Your task to perform on an android device: install app "Indeed Job Search" Image 0: 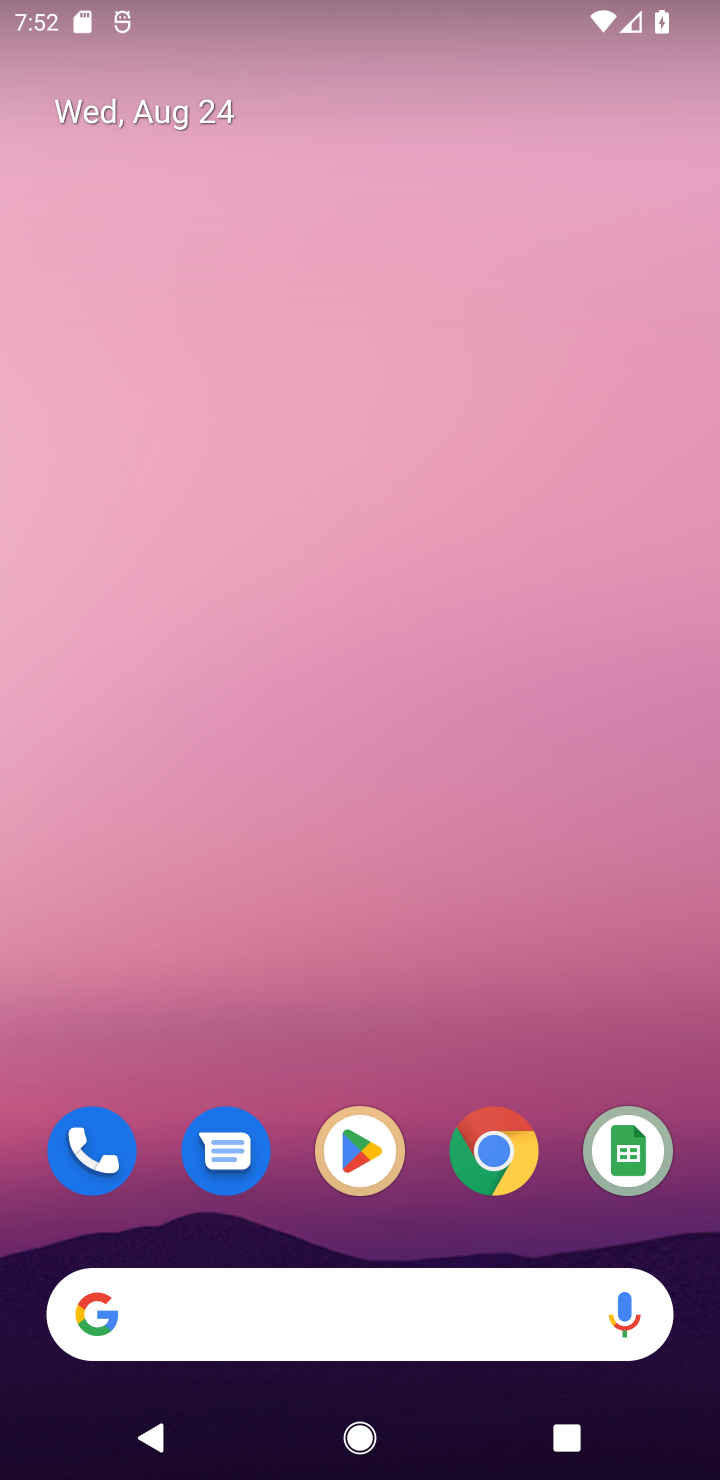
Step 0: click (364, 1149)
Your task to perform on an android device: install app "Indeed Job Search" Image 1: 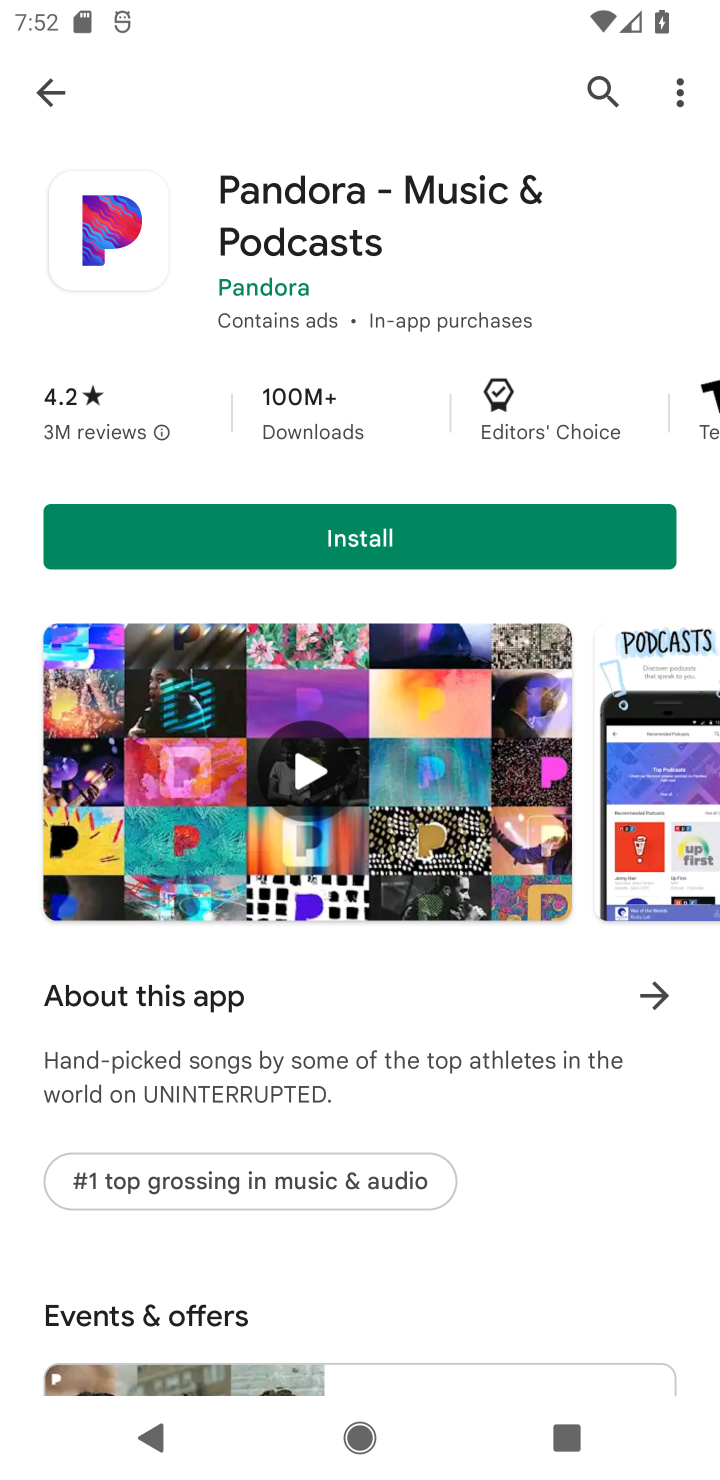
Step 1: click (590, 90)
Your task to perform on an android device: install app "Indeed Job Search" Image 2: 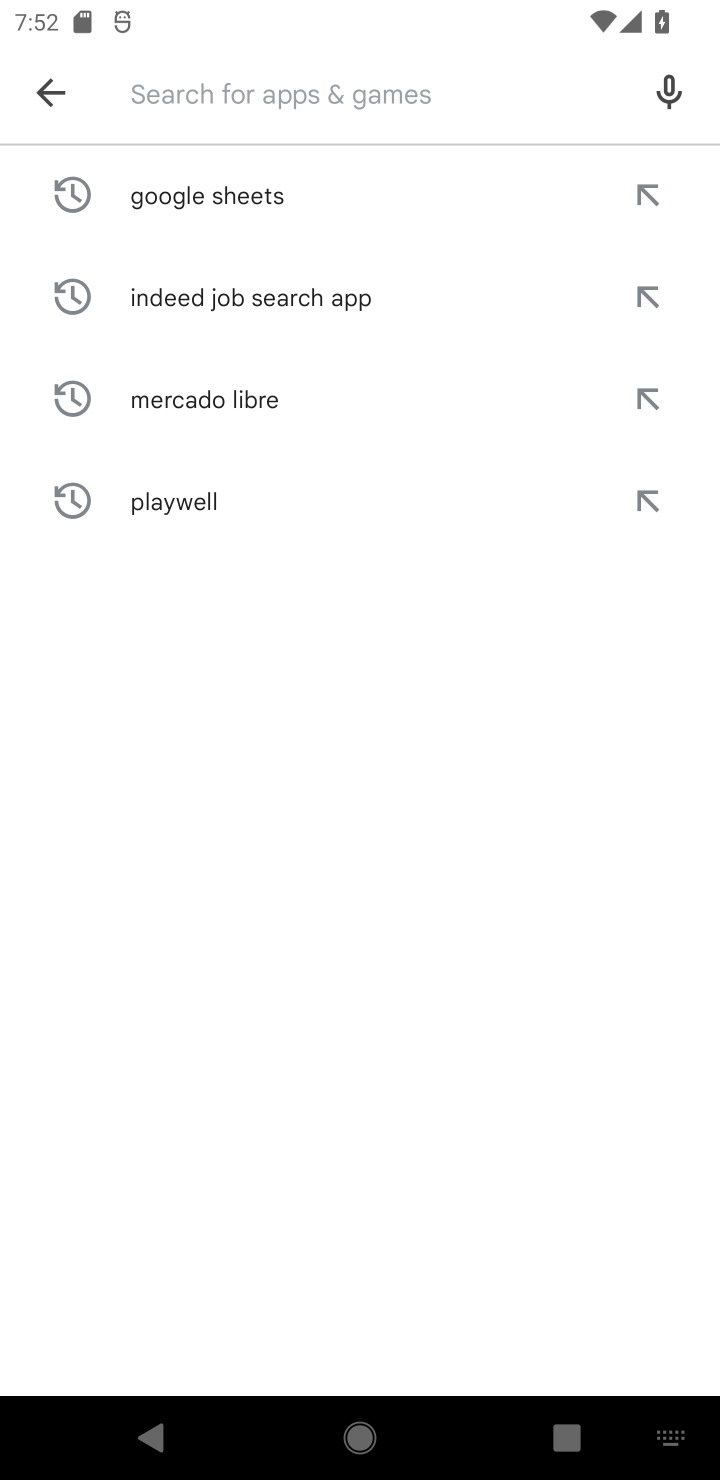
Step 2: type "Indeed Job Search"
Your task to perform on an android device: install app "Indeed Job Search" Image 3: 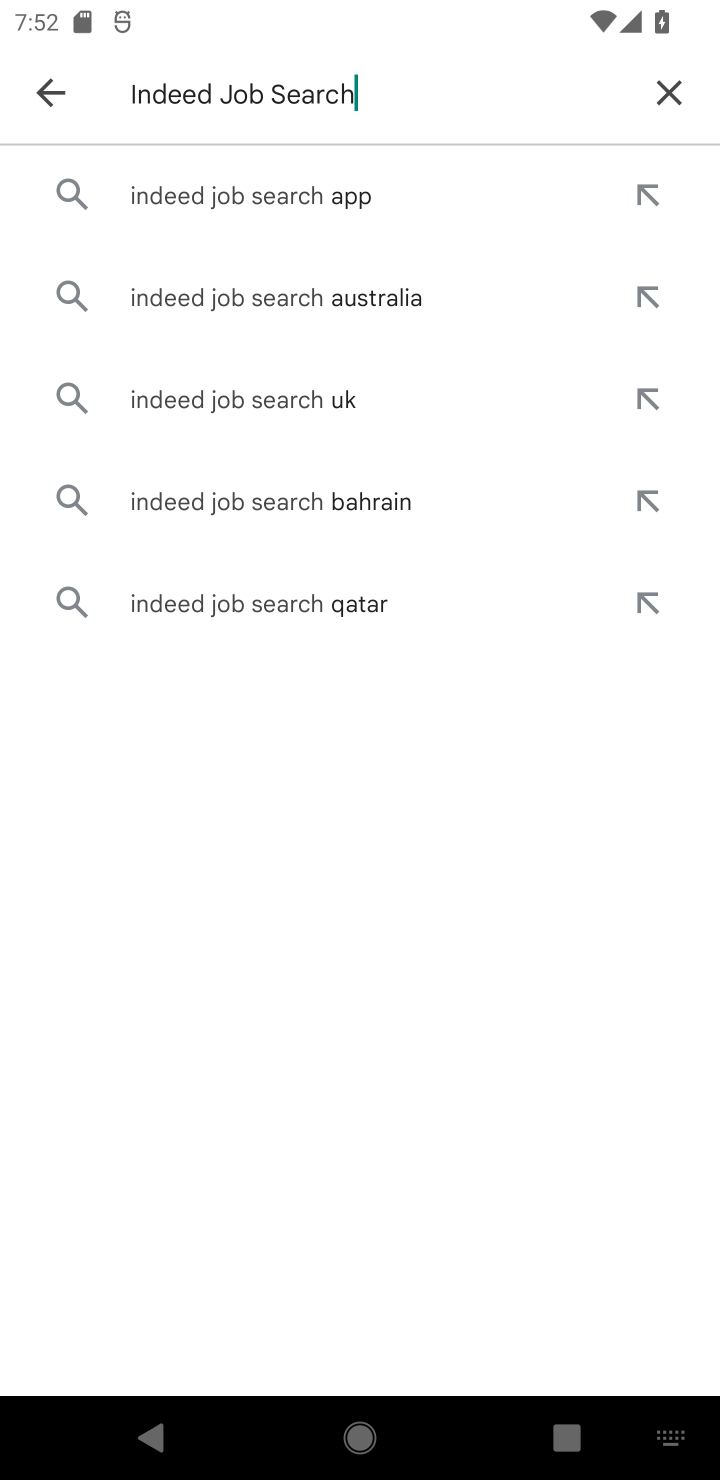
Step 3: click (240, 180)
Your task to perform on an android device: install app "Indeed Job Search" Image 4: 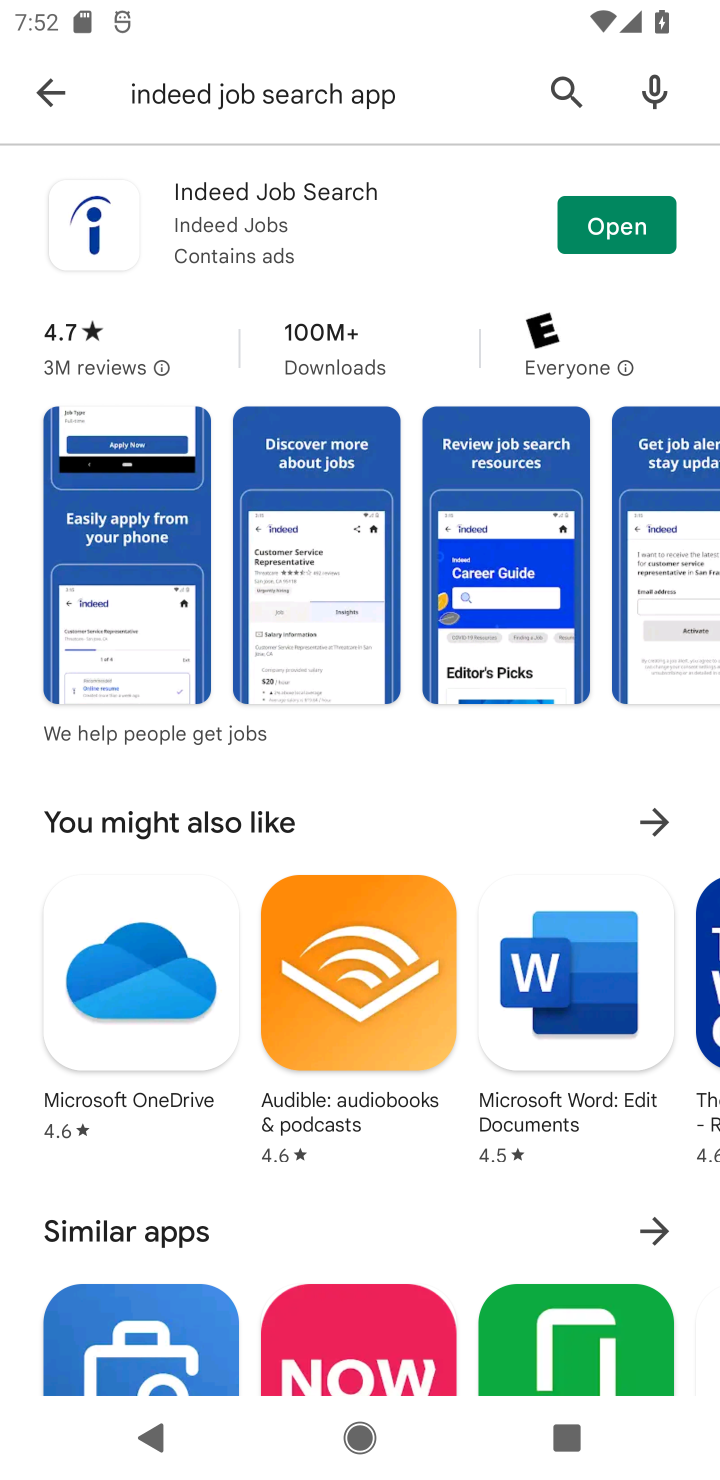
Step 4: task complete